Your task to perform on an android device: delete a single message in the gmail app Image 0: 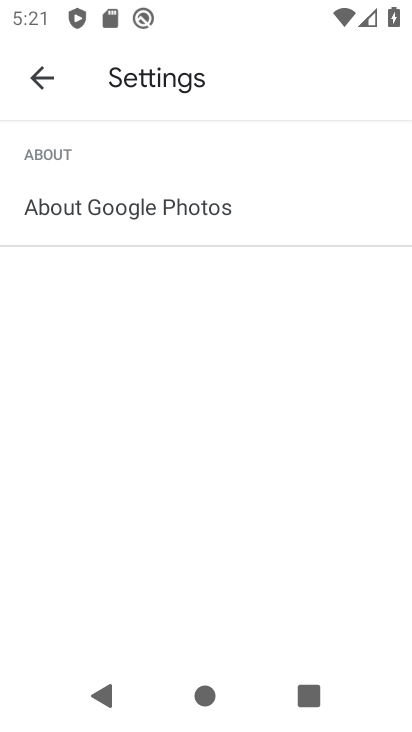
Step 0: press home button
Your task to perform on an android device: delete a single message in the gmail app Image 1: 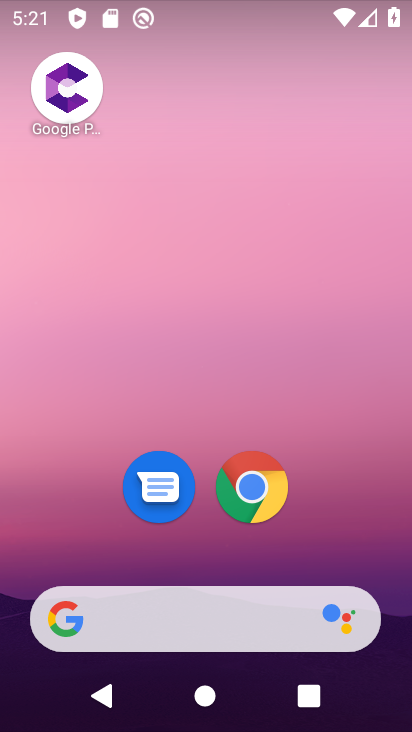
Step 1: click (238, 91)
Your task to perform on an android device: delete a single message in the gmail app Image 2: 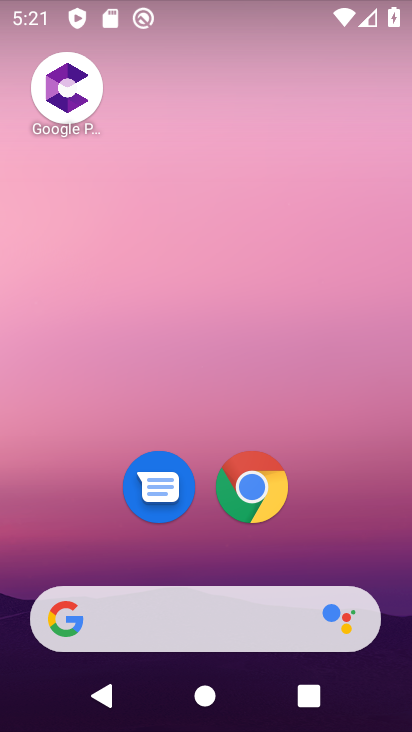
Step 2: drag from (299, 561) to (157, 21)
Your task to perform on an android device: delete a single message in the gmail app Image 3: 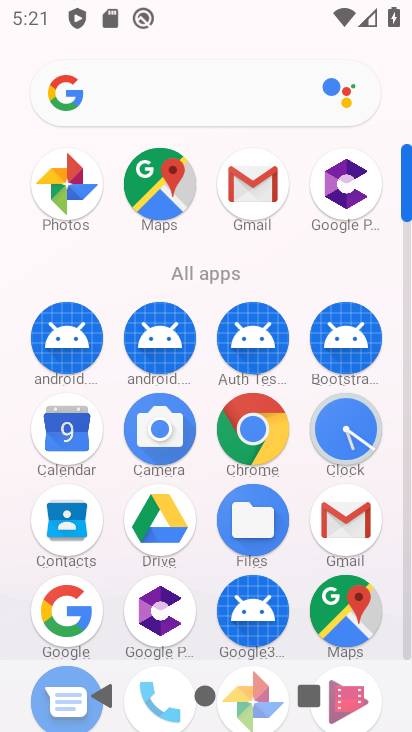
Step 3: click (350, 534)
Your task to perform on an android device: delete a single message in the gmail app Image 4: 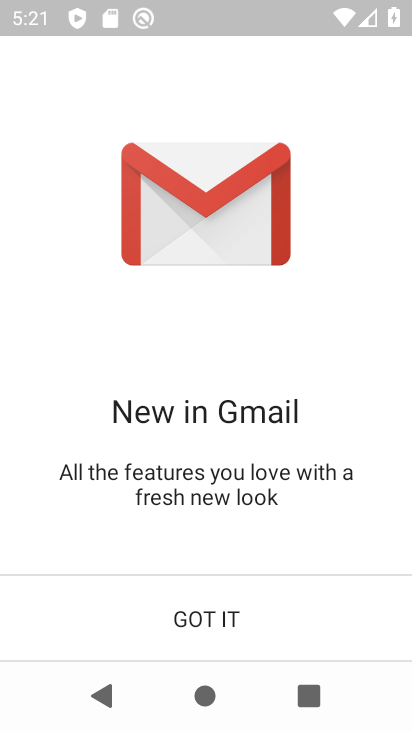
Step 4: click (227, 590)
Your task to perform on an android device: delete a single message in the gmail app Image 5: 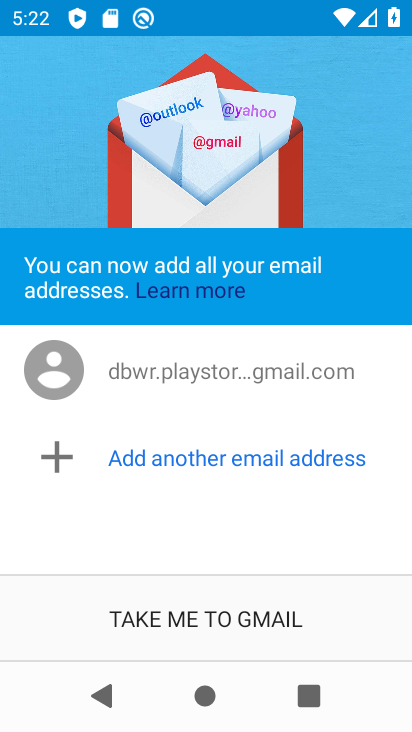
Step 5: click (215, 606)
Your task to perform on an android device: delete a single message in the gmail app Image 6: 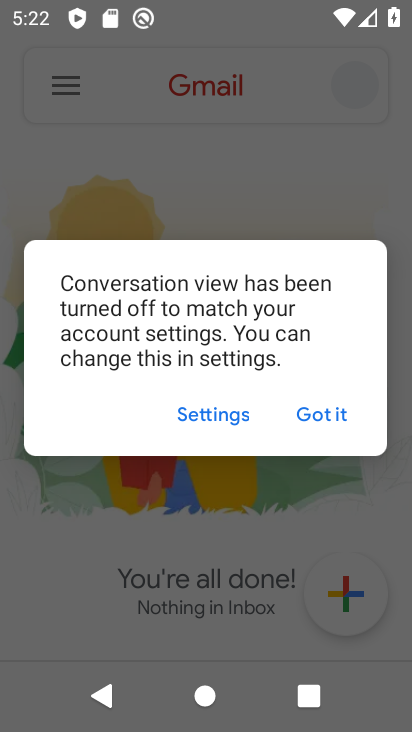
Step 6: click (312, 409)
Your task to perform on an android device: delete a single message in the gmail app Image 7: 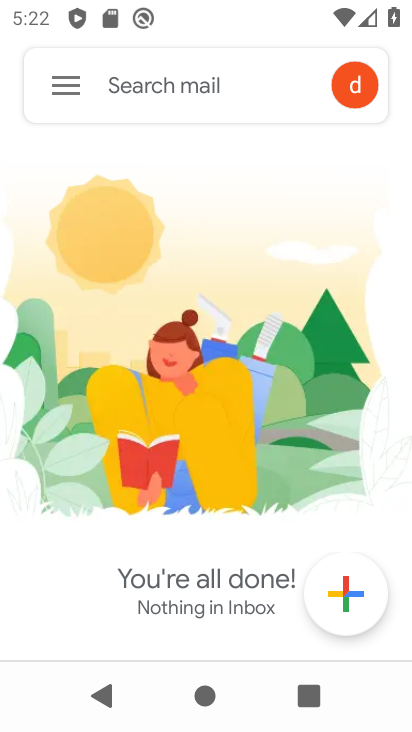
Step 7: click (76, 91)
Your task to perform on an android device: delete a single message in the gmail app Image 8: 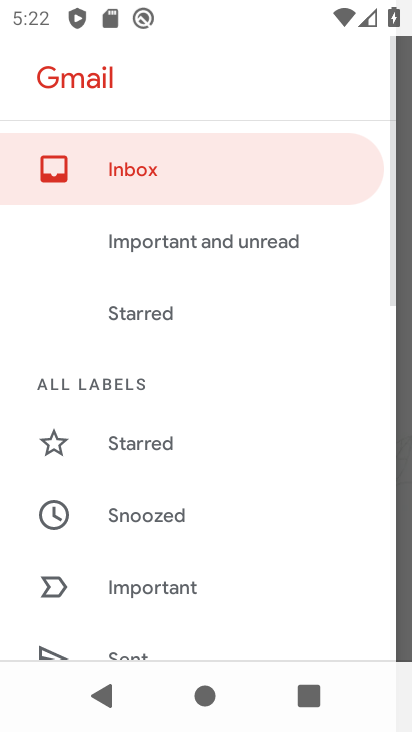
Step 8: drag from (157, 584) to (165, 144)
Your task to perform on an android device: delete a single message in the gmail app Image 9: 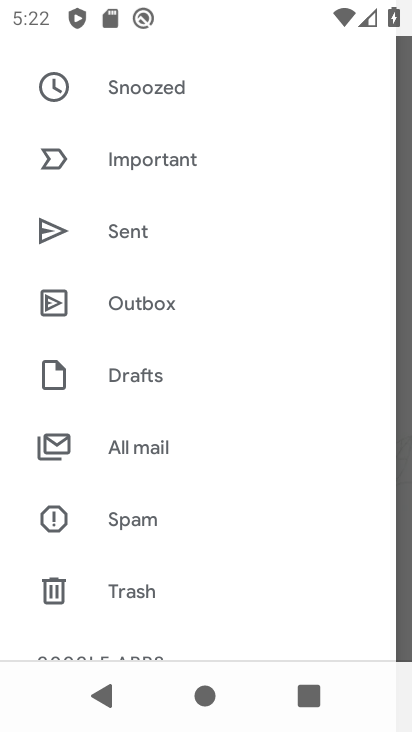
Step 9: click (142, 445)
Your task to perform on an android device: delete a single message in the gmail app Image 10: 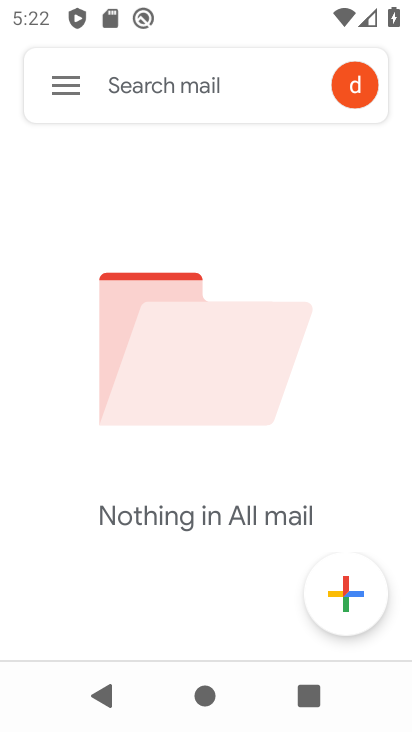
Step 10: task complete